Your task to perform on an android device: search for starred emails in the gmail app Image 0: 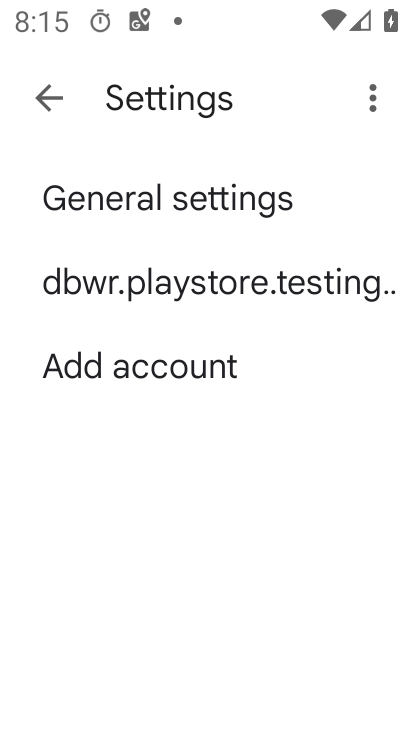
Step 0: press home button
Your task to perform on an android device: search for starred emails in the gmail app Image 1: 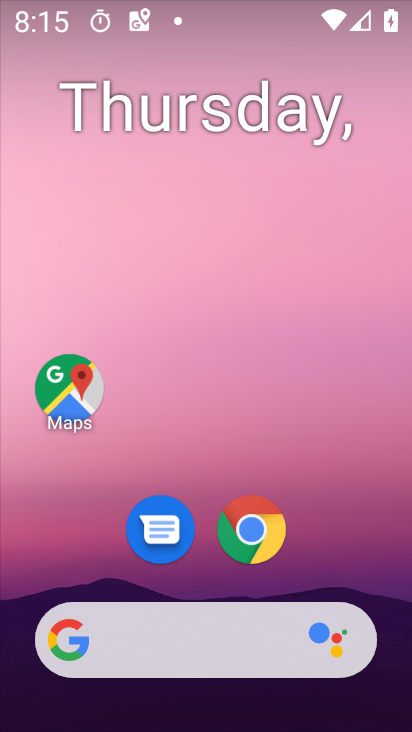
Step 1: drag from (393, 721) to (336, 51)
Your task to perform on an android device: search for starred emails in the gmail app Image 2: 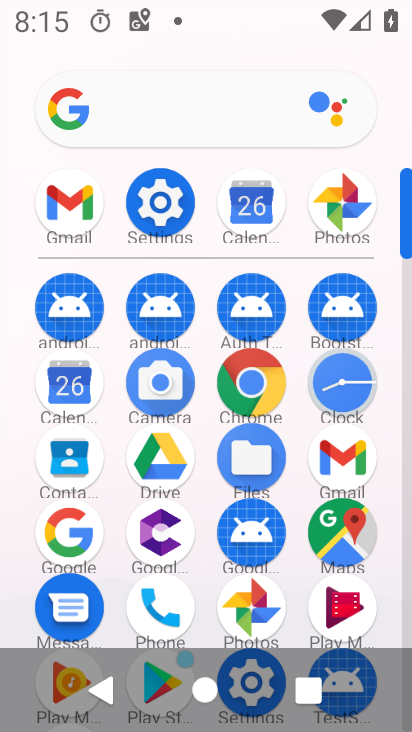
Step 2: click (74, 202)
Your task to perform on an android device: search for starred emails in the gmail app Image 3: 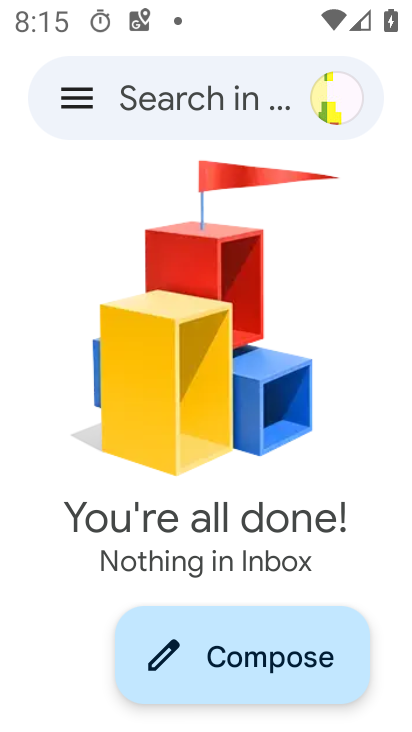
Step 3: click (84, 97)
Your task to perform on an android device: search for starred emails in the gmail app Image 4: 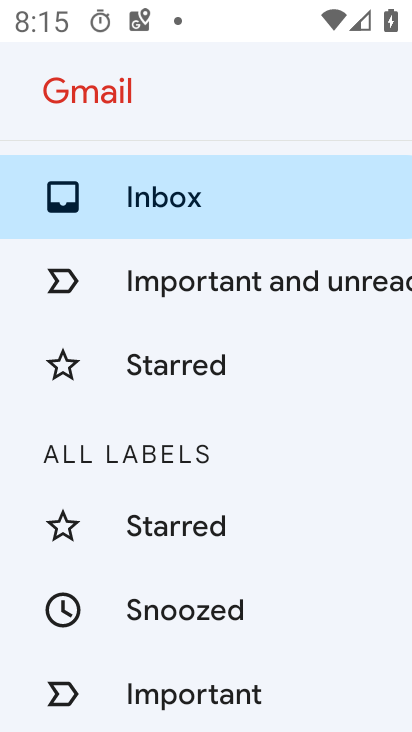
Step 4: click (166, 511)
Your task to perform on an android device: search for starred emails in the gmail app Image 5: 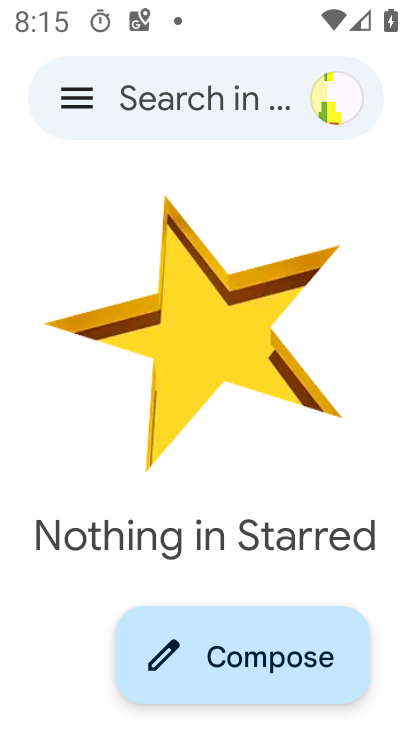
Step 5: task complete